Your task to perform on an android device: uninstall "Gboard" Image 0: 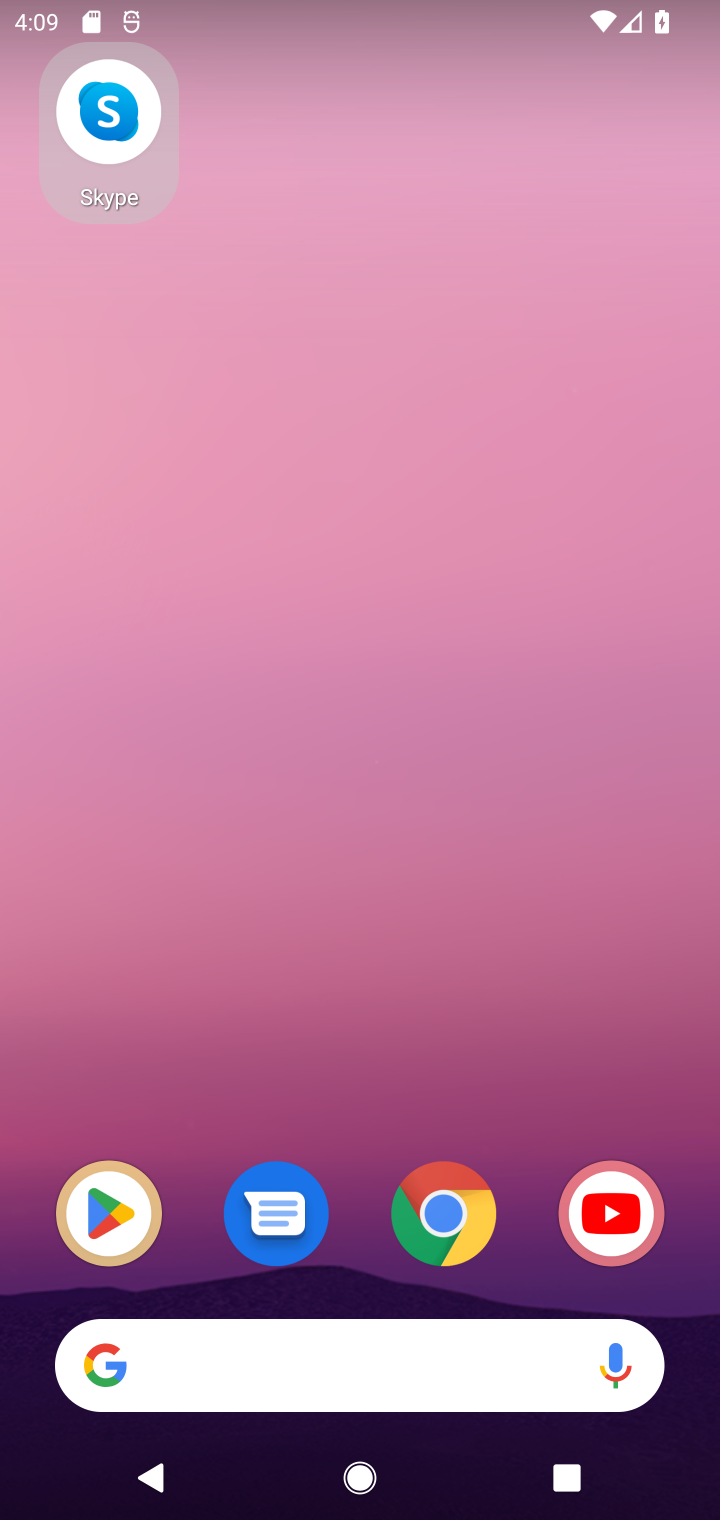
Step 0: drag from (525, 1105) to (459, 1)
Your task to perform on an android device: uninstall "Gboard" Image 1: 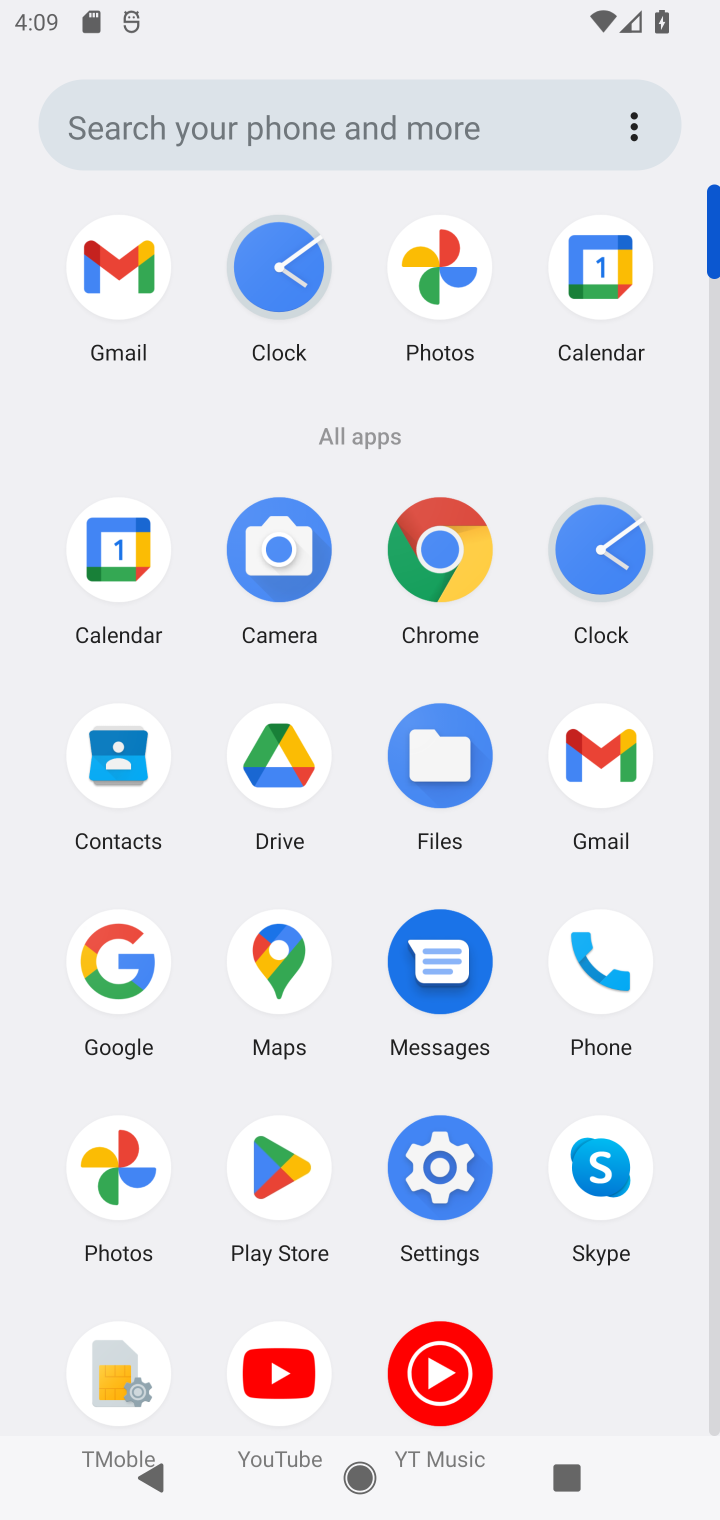
Step 1: click (277, 1170)
Your task to perform on an android device: uninstall "Gboard" Image 2: 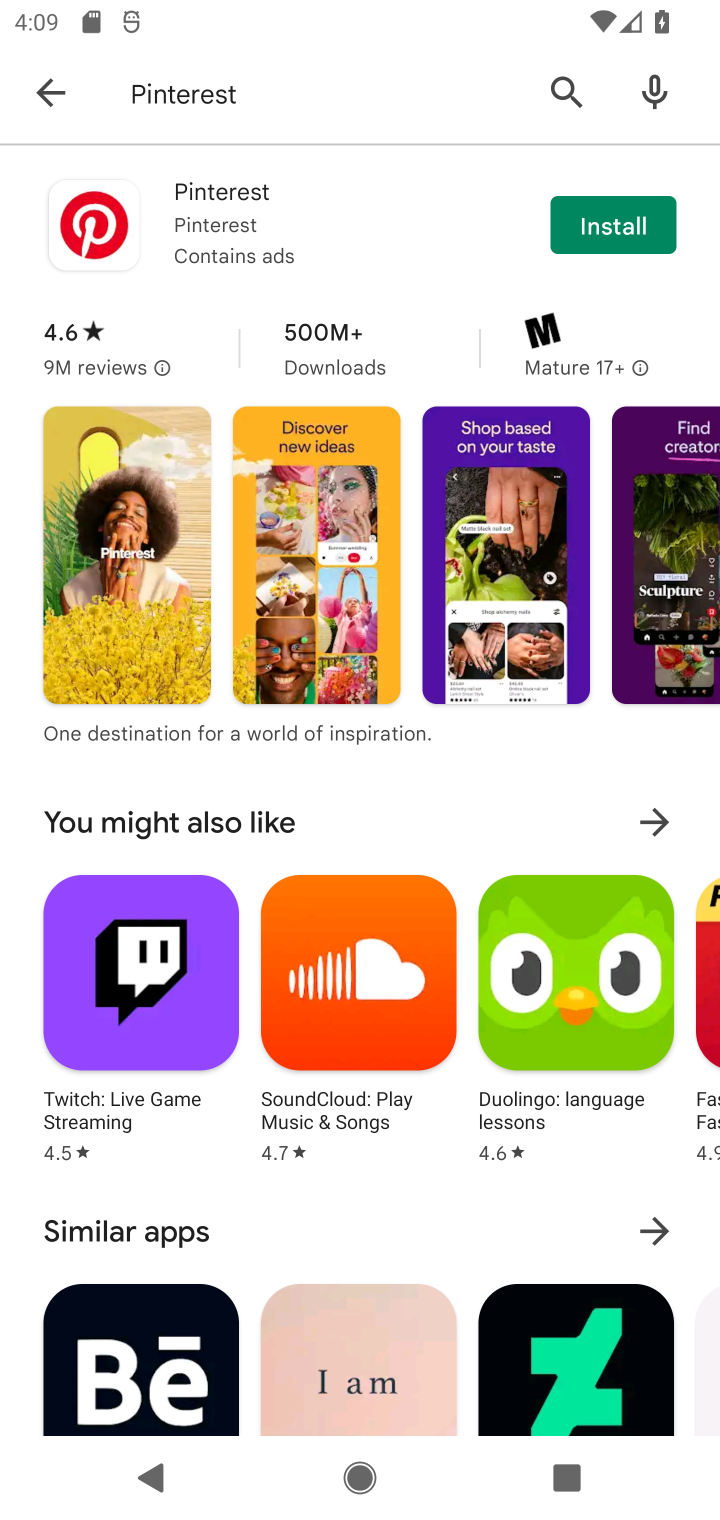
Step 2: click (419, 93)
Your task to perform on an android device: uninstall "Gboard" Image 3: 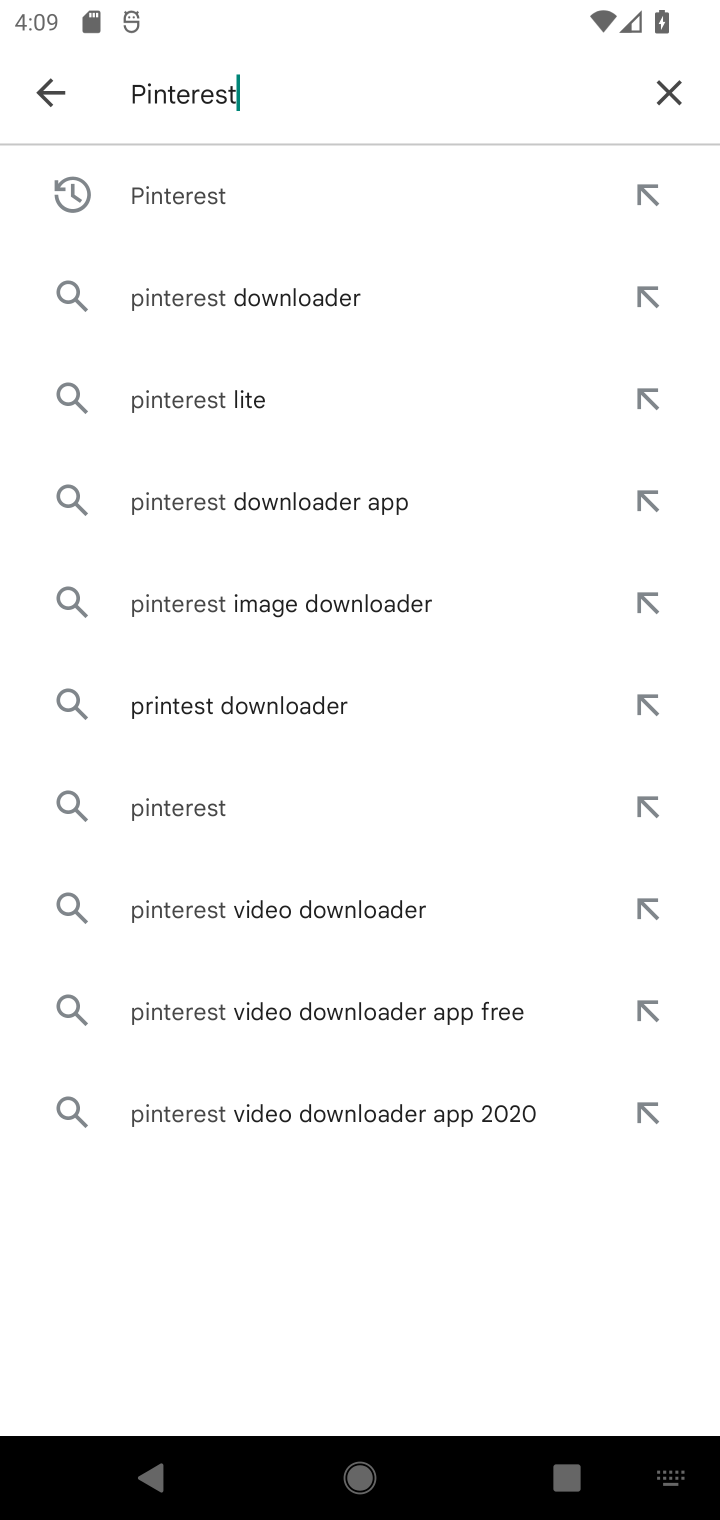
Step 3: click (661, 95)
Your task to perform on an android device: uninstall "Gboard" Image 4: 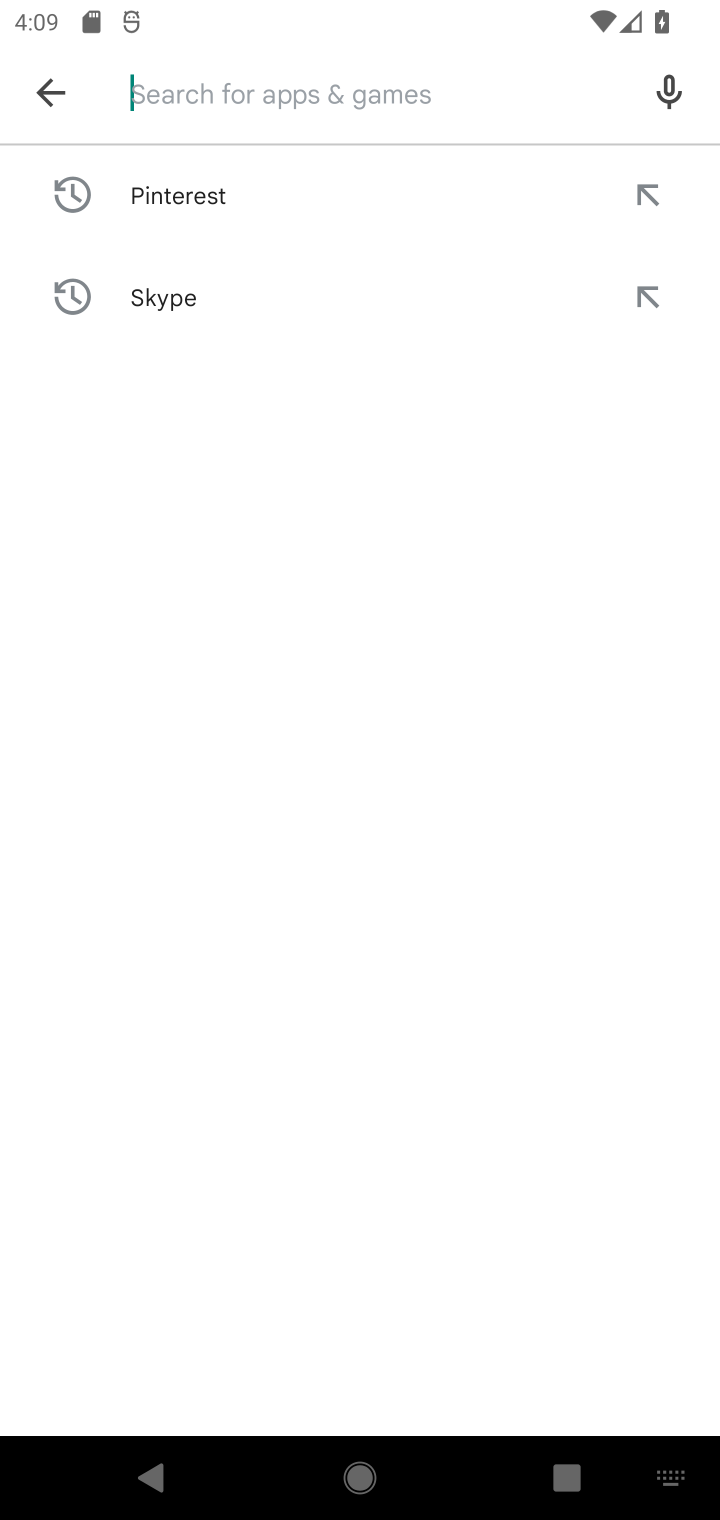
Step 4: type "Gboard"
Your task to perform on an android device: uninstall "Gboard" Image 5: 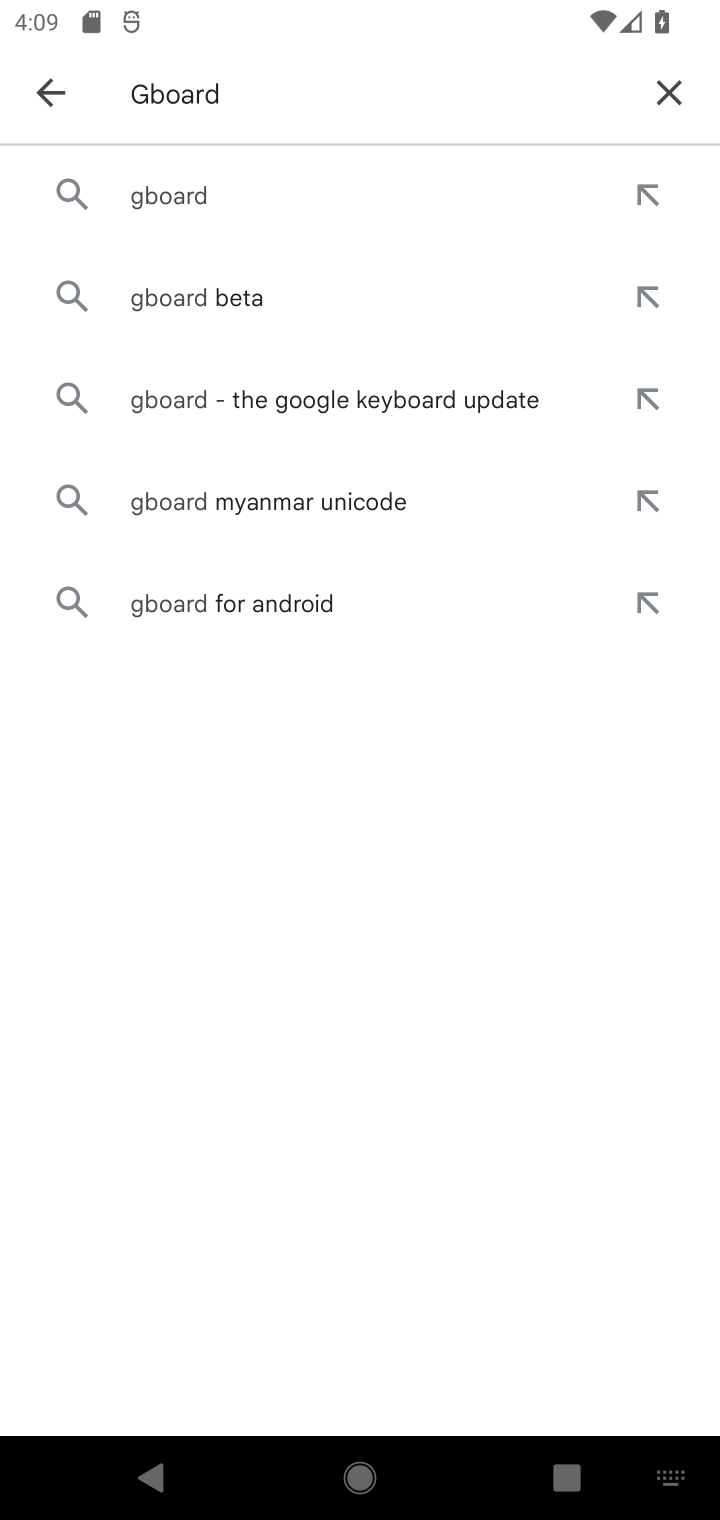
Step 5: press enter
Your task to perform on an android device: uninstall "Gboard" Image 6: 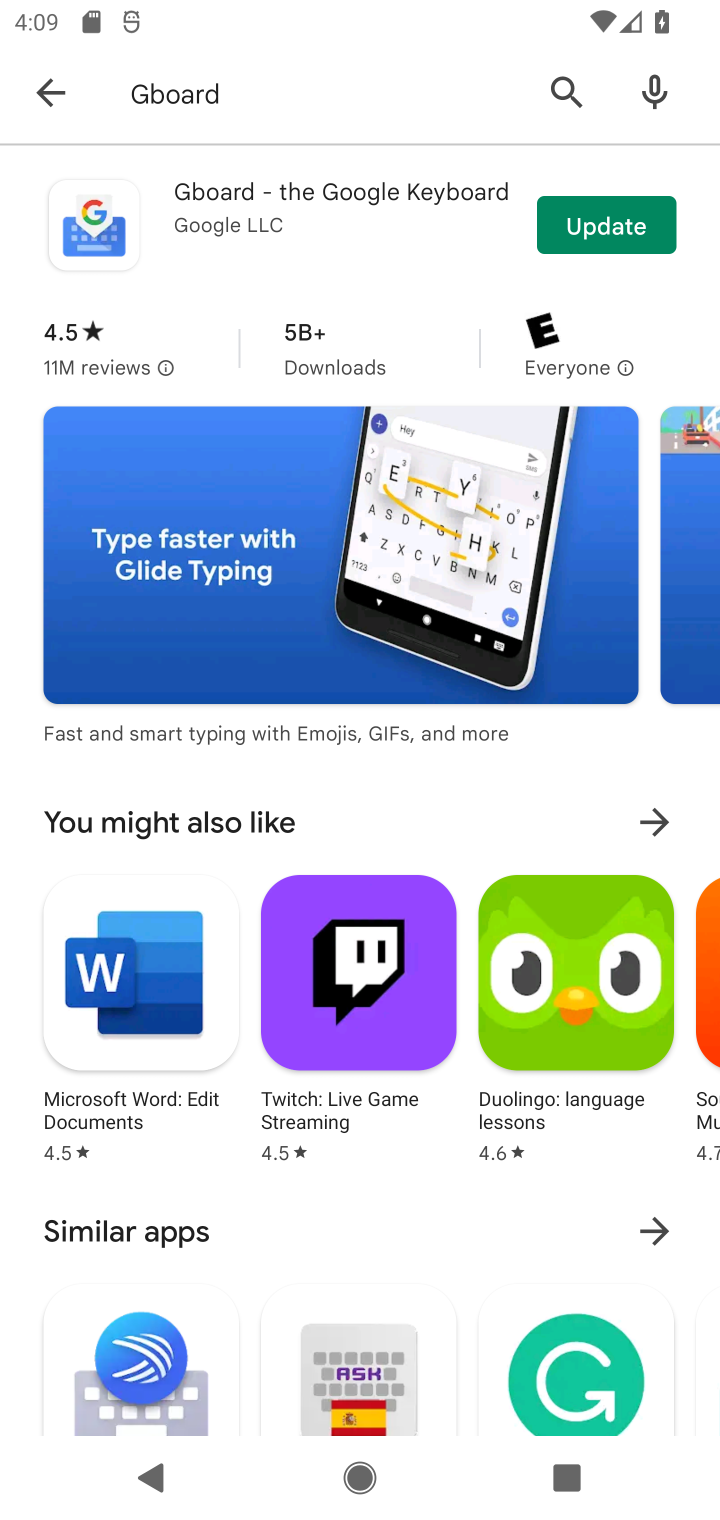
Step 6: click (367, 240)
Your task to perform on an android device: uninstall "Gboard" Image 7: 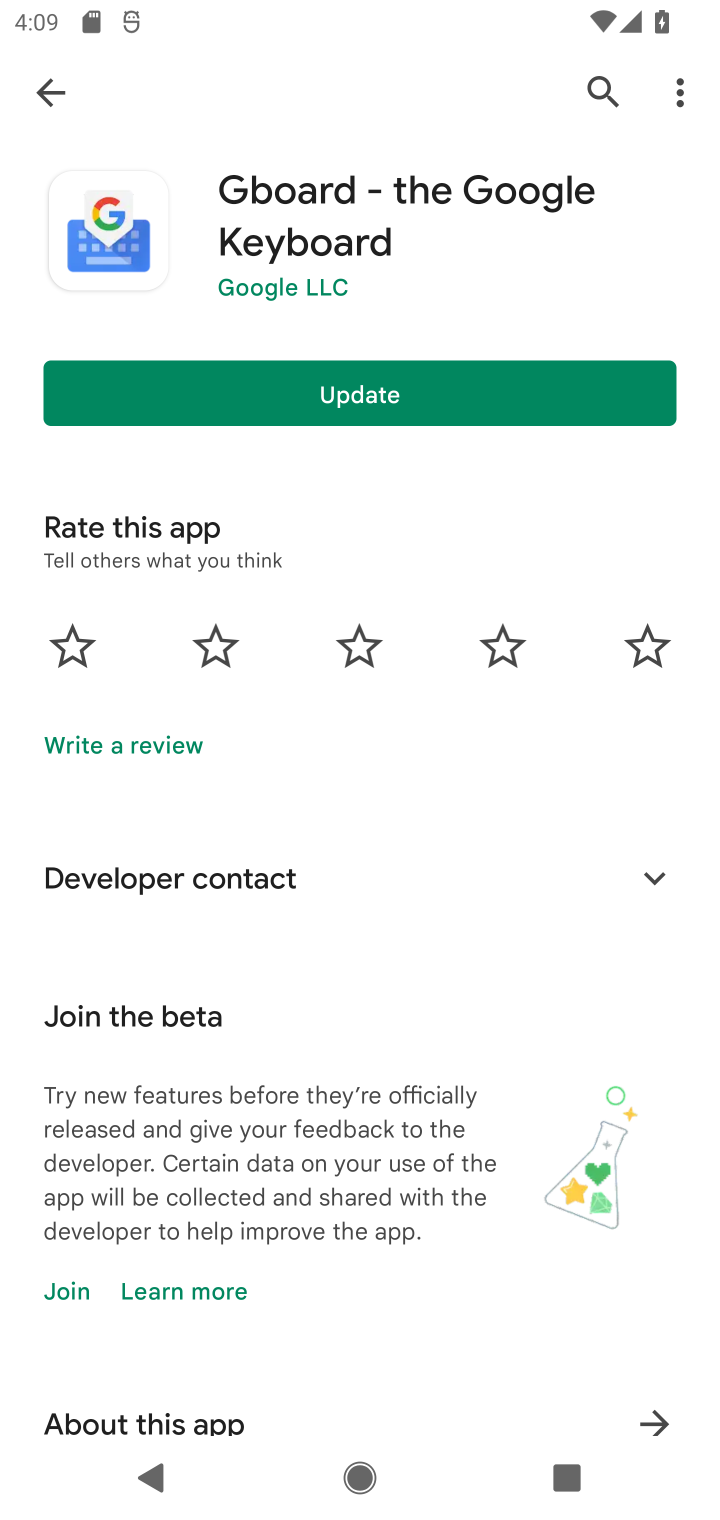
Step 7: task complete